Your task to perform on an android device: Clear all items from cart on walmart.com. Search for "logitech g pro" on walmart.com, select the first entry, add it to the cart, then select checkout. Image 0: 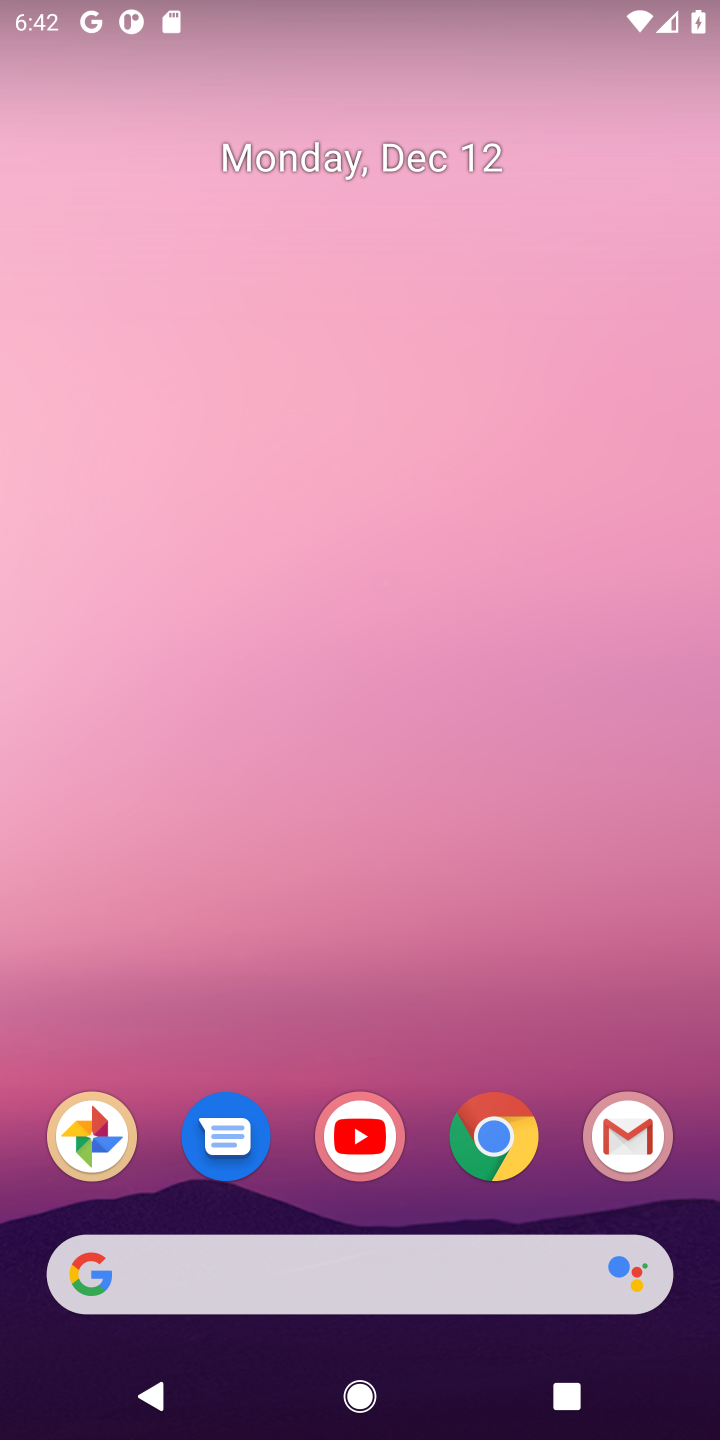
Step 0: click (495, 1145)
Your task to perform on an android device: Clear all items from cart on walmart.com. Search for "logitech g pro" on walmart.com, select the first entry, add it to the cart, then select checkout. Image 1: 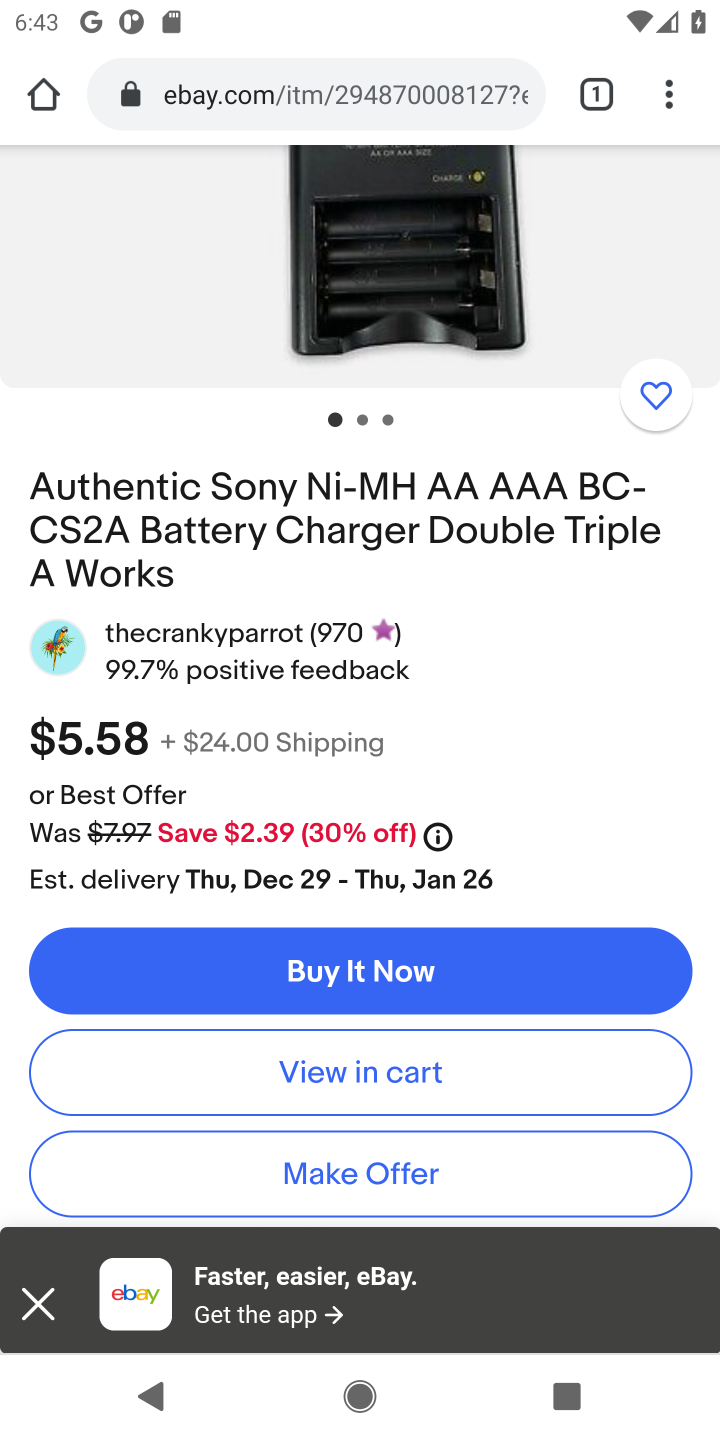
Step 1: click (288, 99)
Your task to perform on an android device: Clear all items from cart on walmart.com. Search for "logitech g pro" on walmart.com, select the first entry, add it to the cart, then select checkout. Image 2: 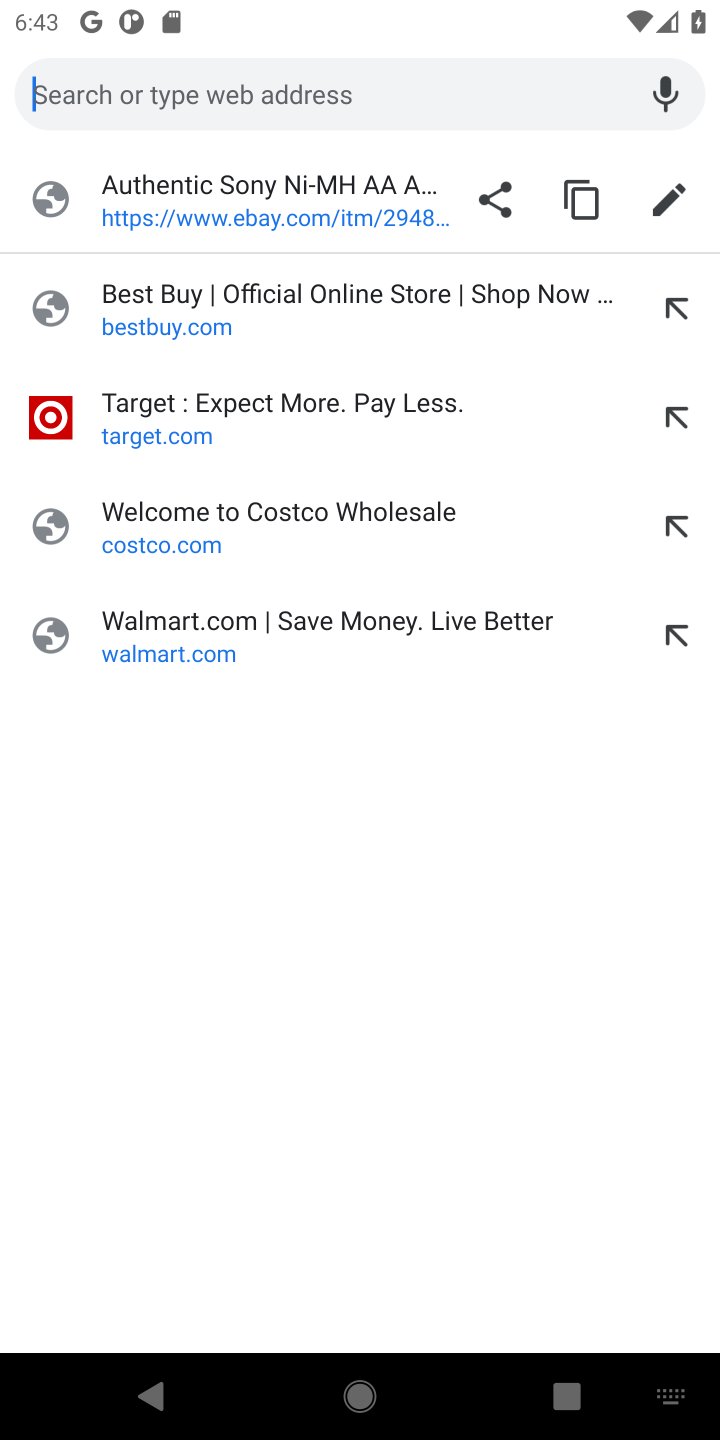
Step 2: click (190, 656)
Your task to perform on an android device: Clear all items from cart on walmart.com. Search for "logitech g pro" on walmart.com, select the first entry, add it to the cart, then select checkout. Image 3: 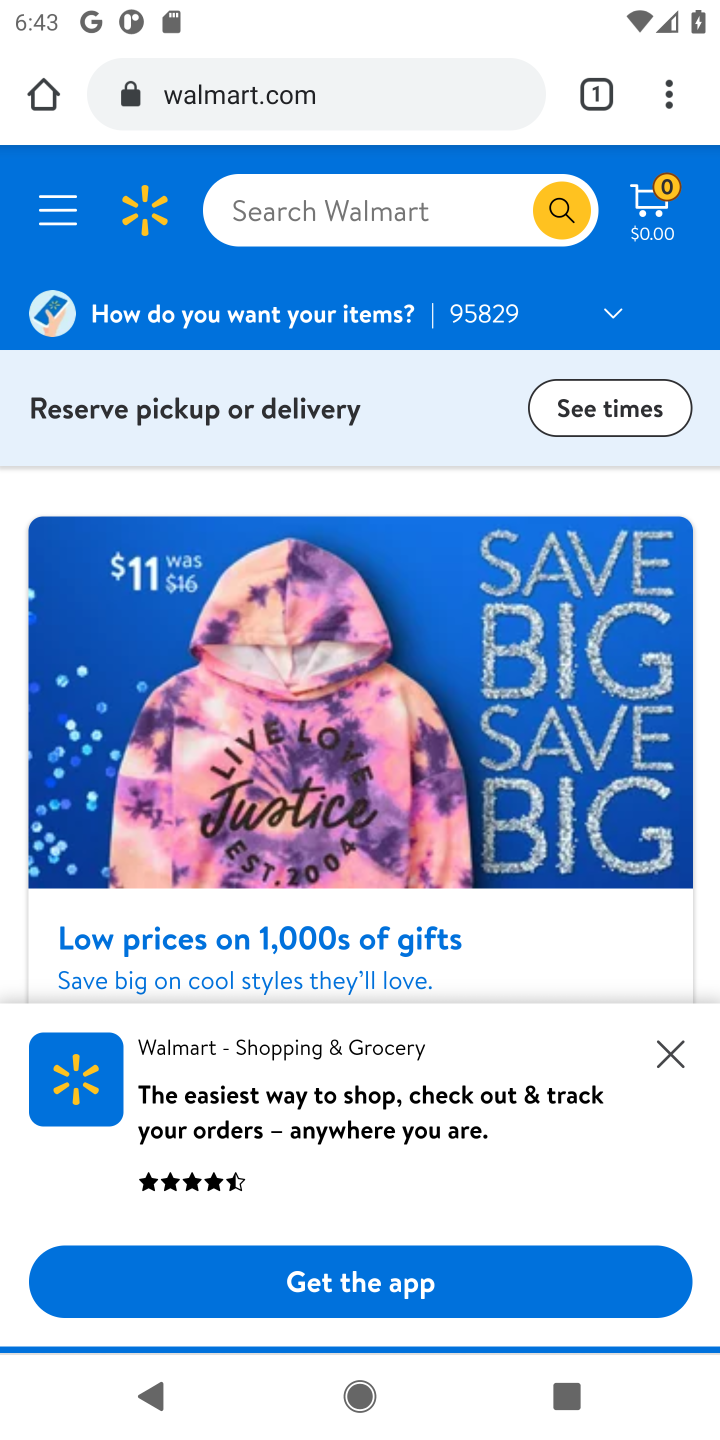
Step 3: click (654, 208)
Your task to perform on an android device: Clear all items from cart on walmart.com. Search for "logitech g pro" on walmart.com, select the first entry, add it to the cart, then select checkout. Image 4: 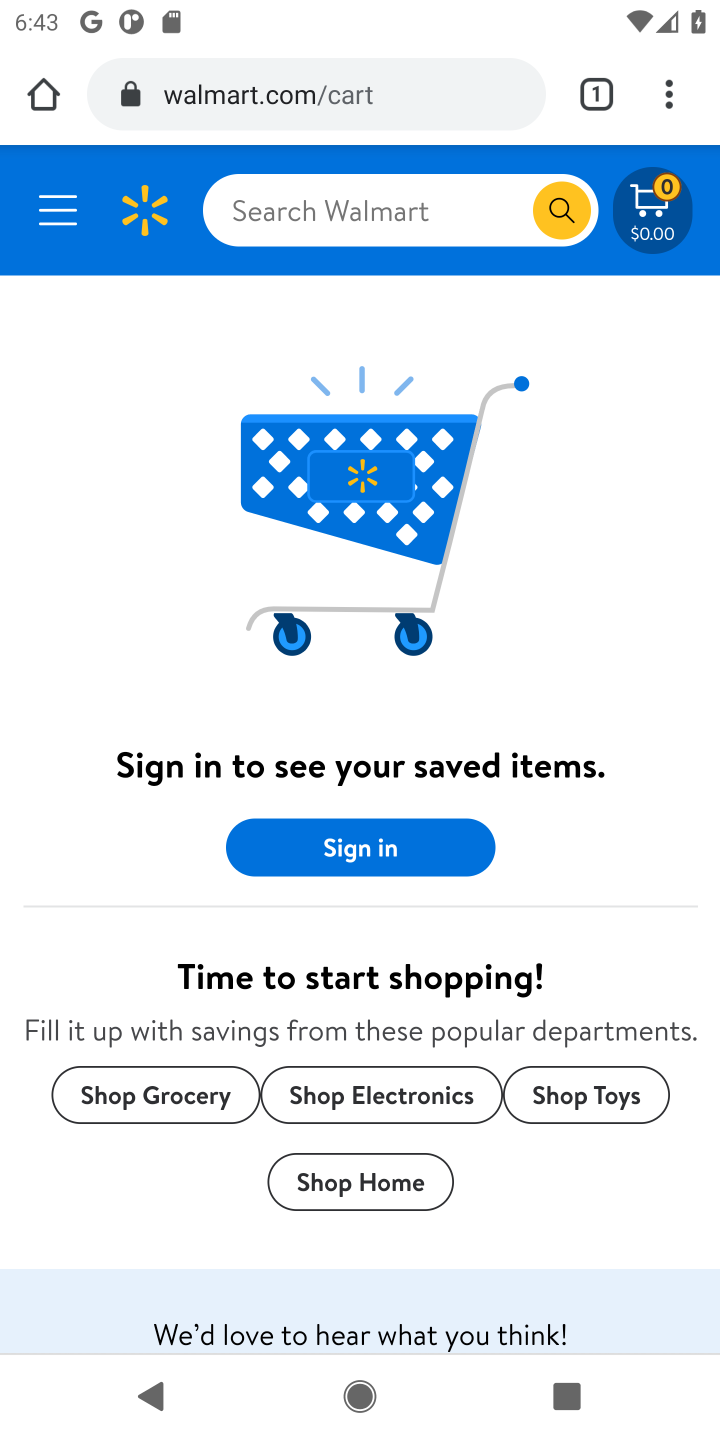
Step 4: click (302, 208)
Your task to perform on an android device: Clear all items from cart on walmart.com. Search for "logitech g pro" on walmart.com, select the first entry, add it to the cart, then select checkout. Image 5: 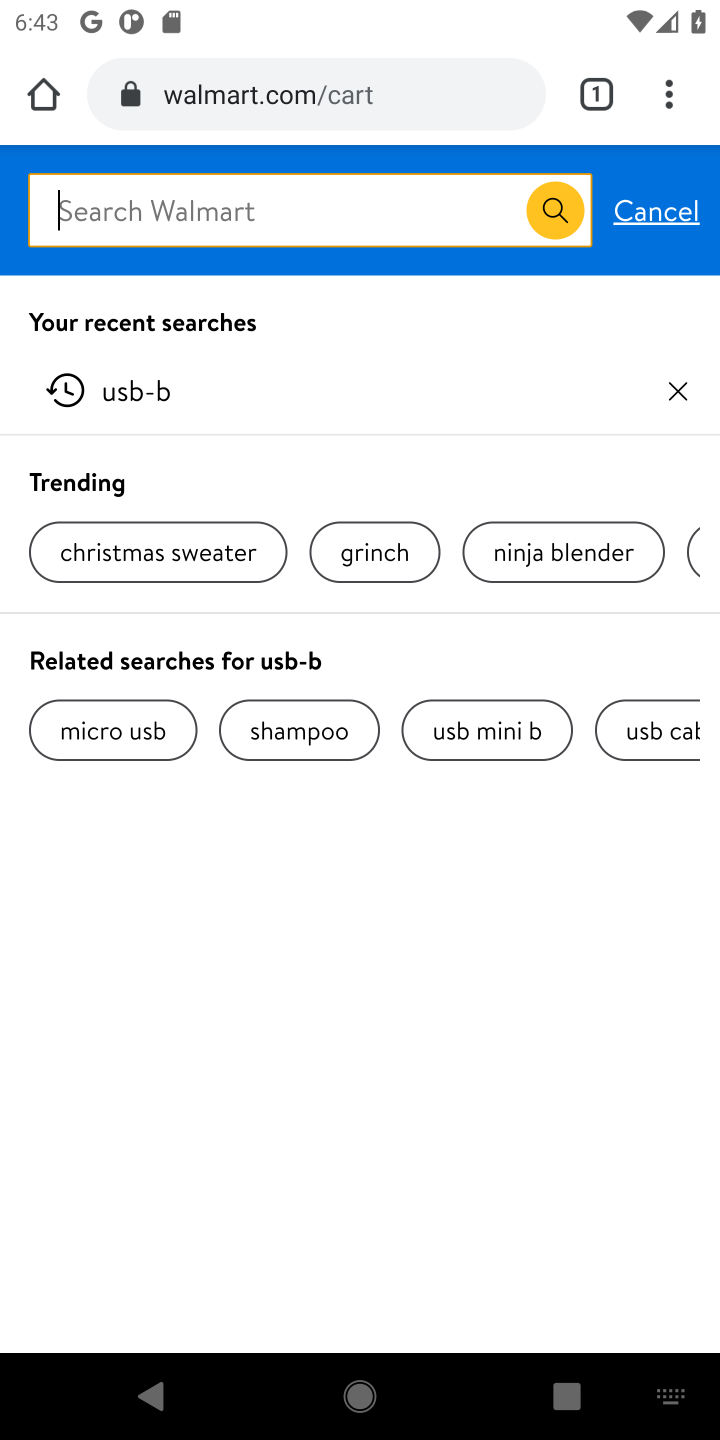
Step 5: type "logitech g pro"
Your task to perform on an android device: Clear all items from cart on walmart.com. Search for "logitech g pro" on walmart.com, select the first entry, add it to the cart, then select checkout. Image 6: 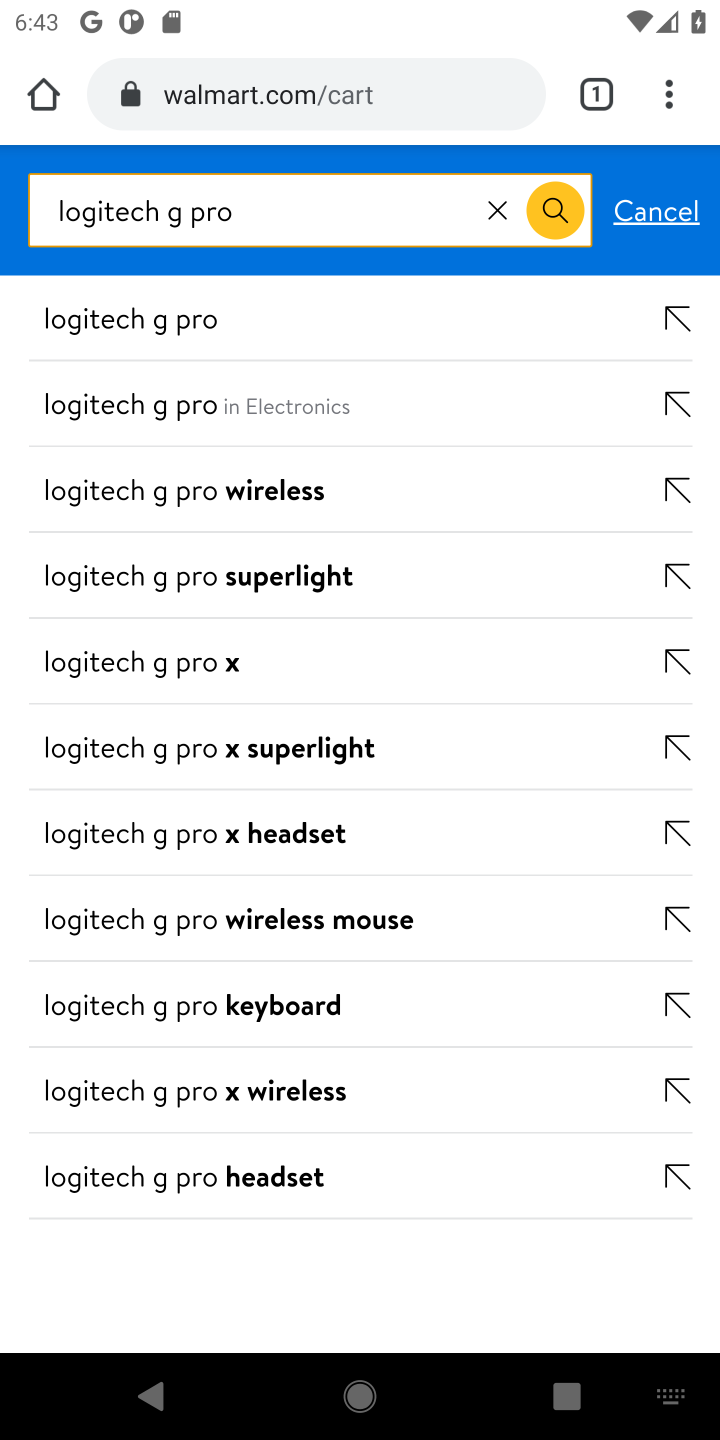
Step 6: click (138, 315)
Your task to perform on an android device: Clear all items from cart on walmart.com. Search for "logitech g pro" on walmart.com, select the first entry, add it to the cart, then select checkout. Image 7: 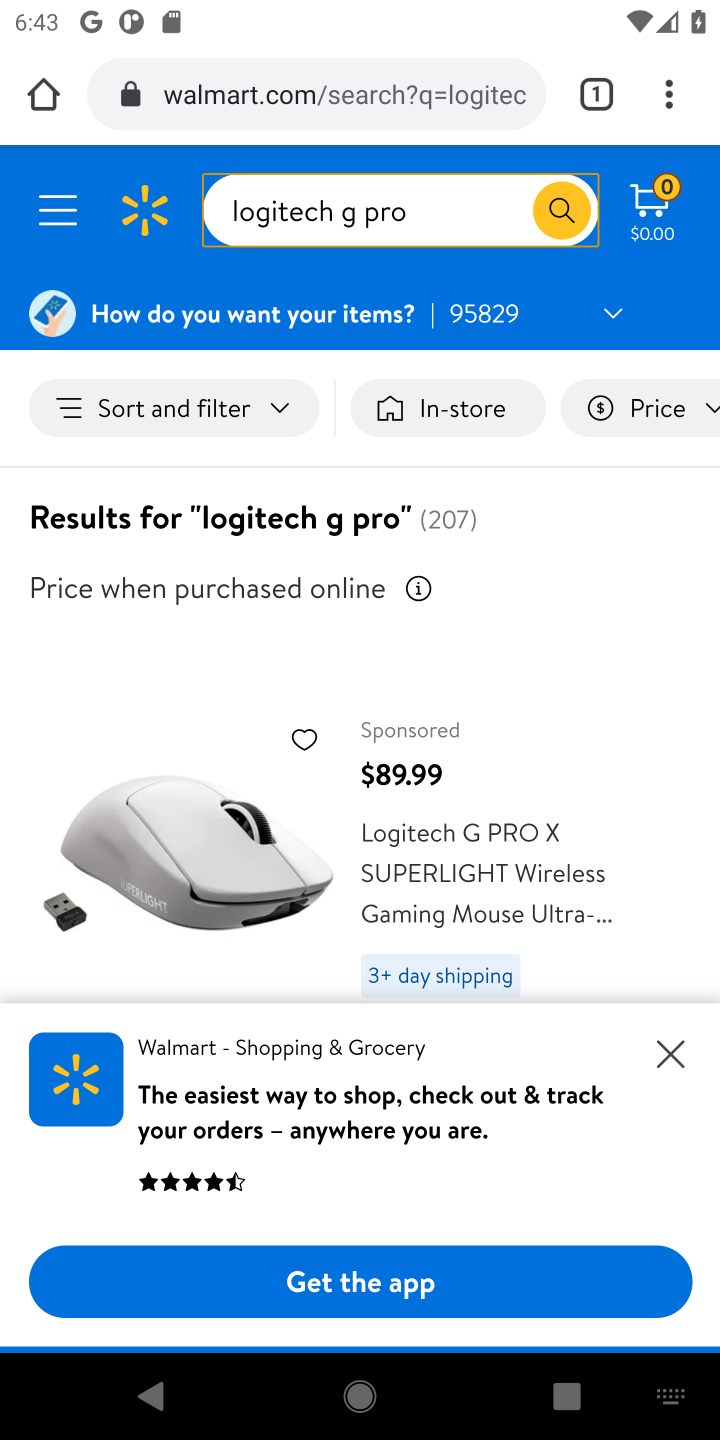
Step 7: drag from (319, 913) to (343, 457)
Your task to perform on an android device: Clear all items from cart on walmart.com. Search for "logitech g pro" on walmart.com, select the first entry, add it to the cart, then select checkout. Image 8: 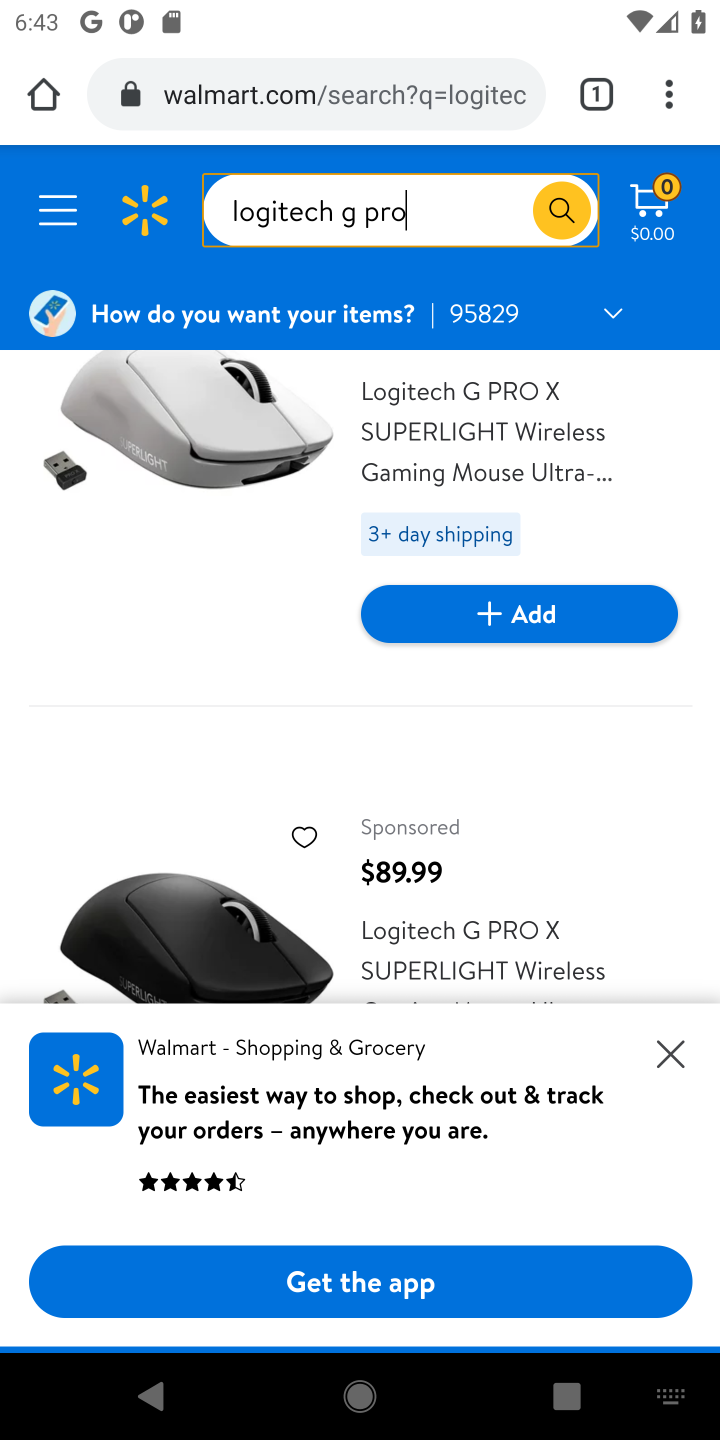
Step 8: click (501, 629)
Your task to perform on an android device: Clear all items from cart on walmart.com. Search for "logitech g pro" on walmart.com, select the first entry, add it to the cart, then select checkout. Image 9: 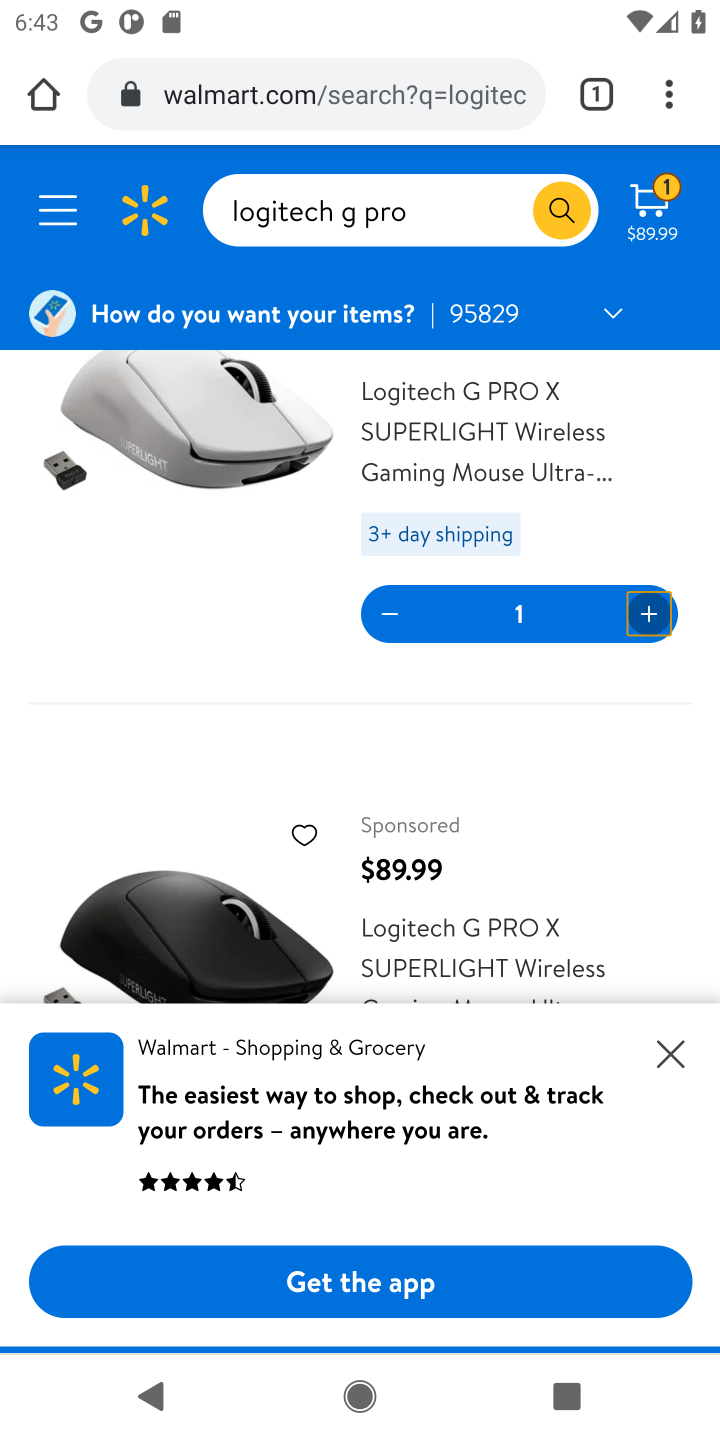
Step 9: click (645, 202)
Your task to perform on an android device: Clear all items from cart on walmart.com. Search for "logitech g pro" on walmart.com, select the first entry, add it to the cart, then select checkout. Image 10: 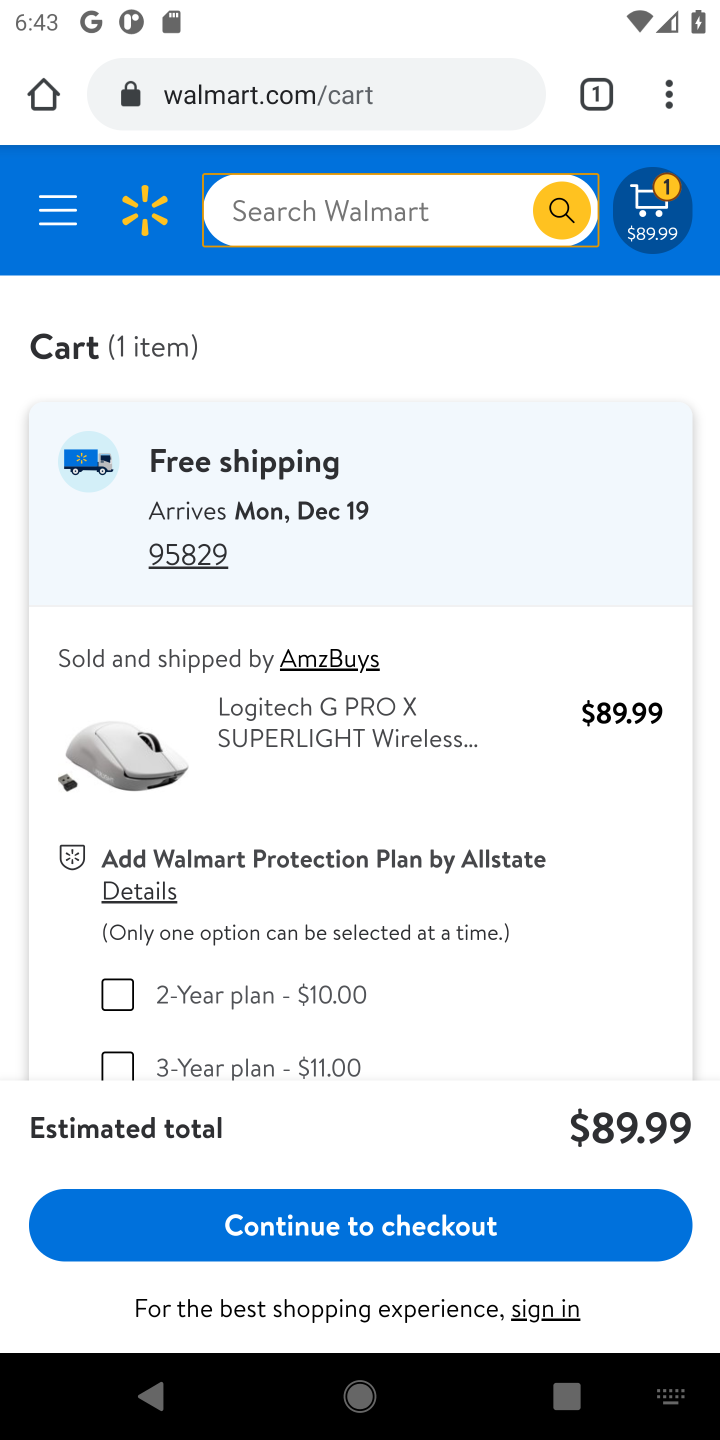
Step 10: click (320, 1227)
Your task to perform on an android device: Clear all items from cart on walmart.com. Search for "logitech g pro" on walmart.com, select the first entry, add it to the cart, then select checkout. Image 11: 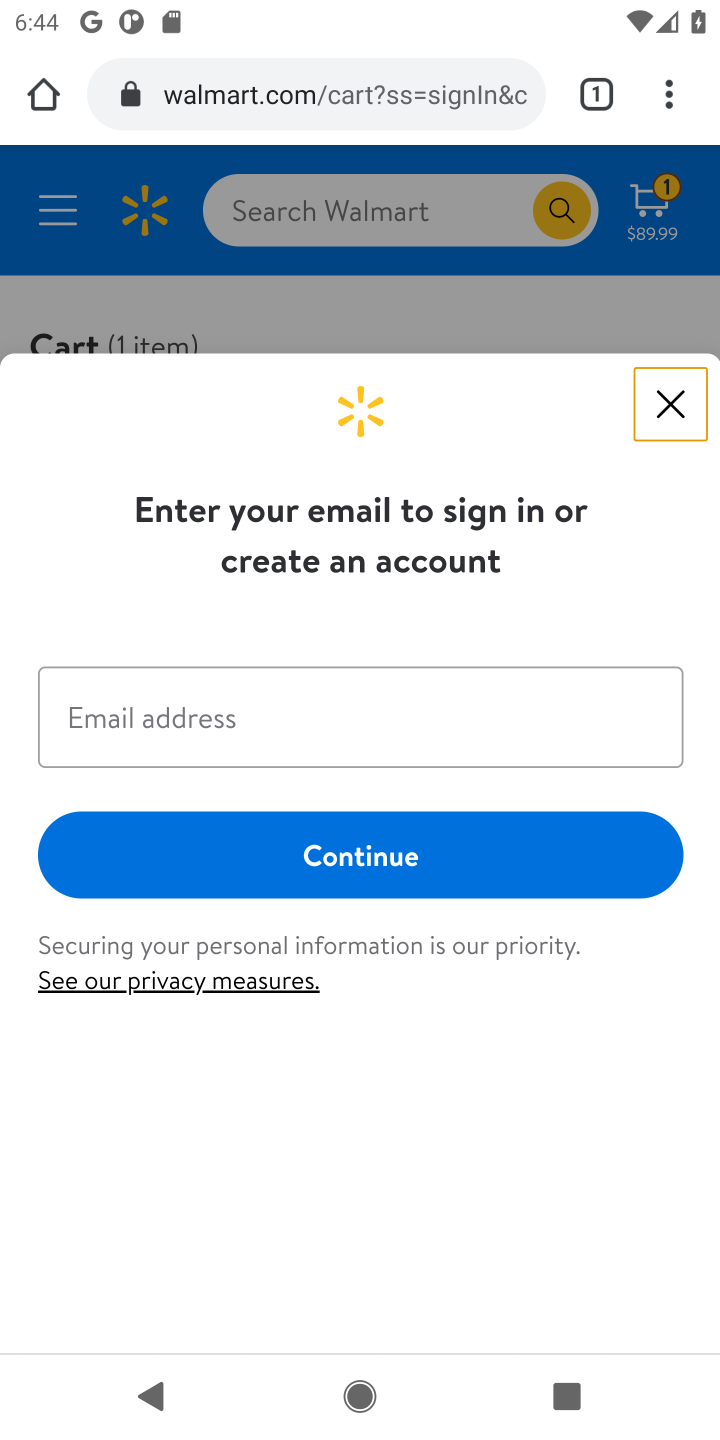
Step 11: task complete